Your task to perform on an android device: Search for the best rated TV on Target Image 0: 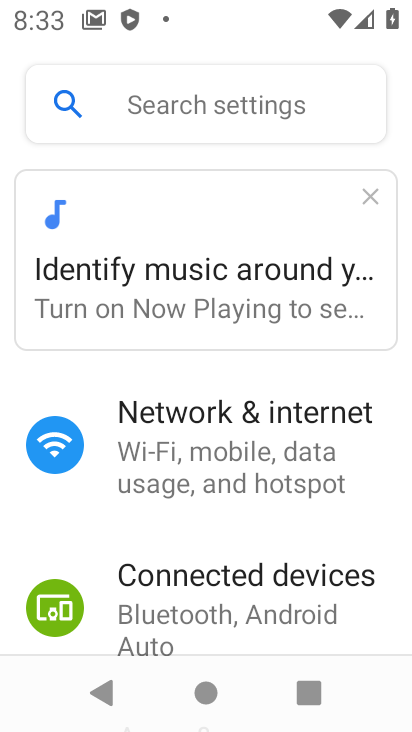
Step 0: press home button
Your task to perform on an android device: Search for the best rated TV on Target Image 1: 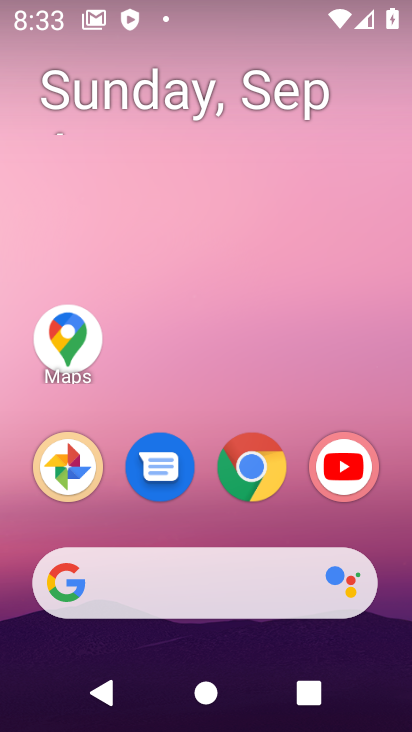
Step 1: click (264, 485)
Your task to perform on an android device: Search for the best rated TV on Target Image 2: 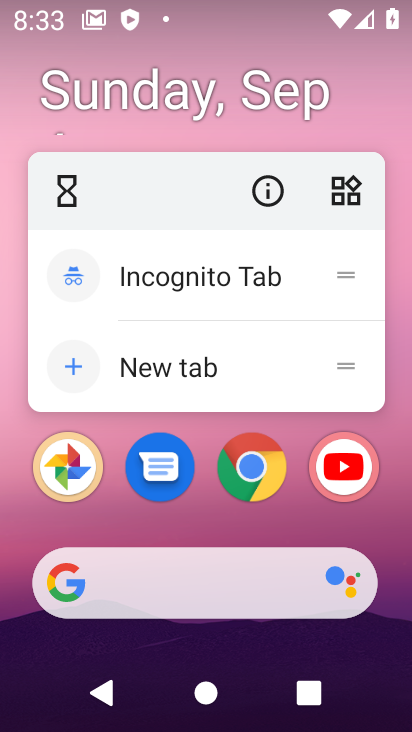
Step 2: click (262, 484)
Your task to perform on an android device: Search for the best rated TV on Target Image 3: 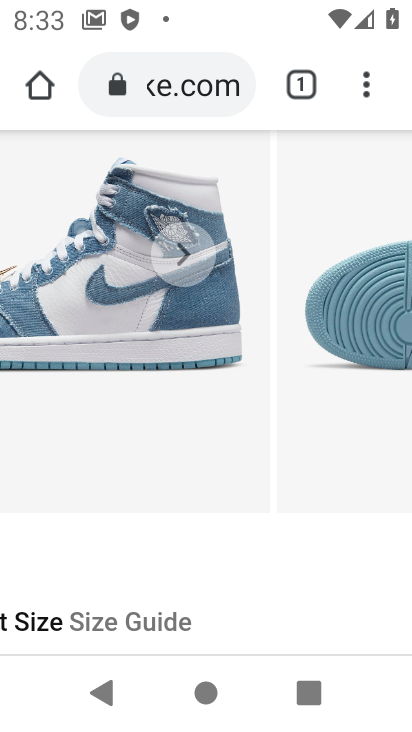
Step 3: click (169, 79)
Your task to perform on an android device: Search for the best rated TV on Target Image 4: 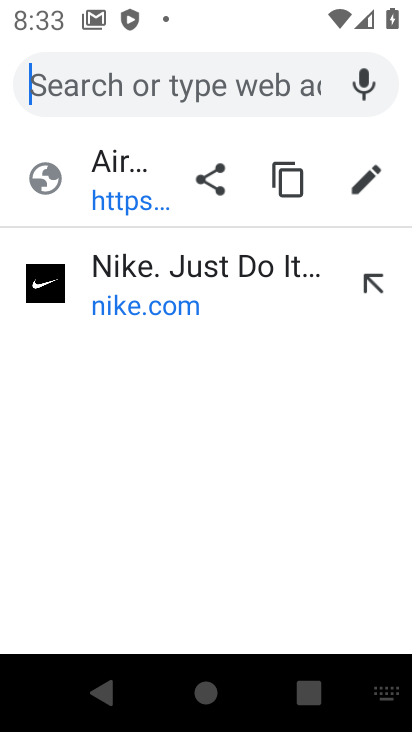
Step 4: type "target"
Your task to perform on an android device: Search for the best rated TV on Target Image 5: 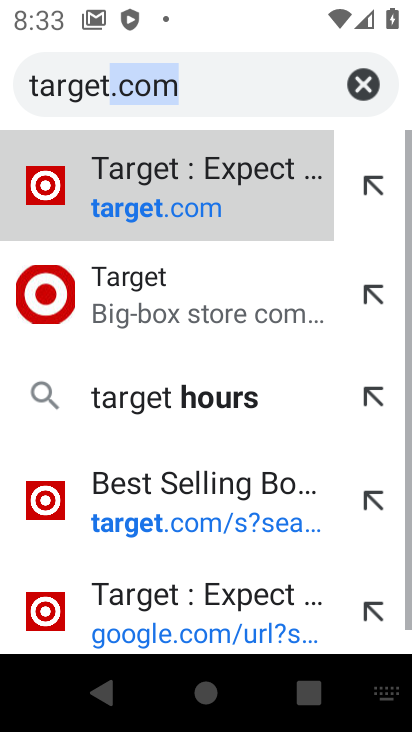
Step 5: type ""
Your task to perform on an android device: Search for the best rated TV on Target Image 6: 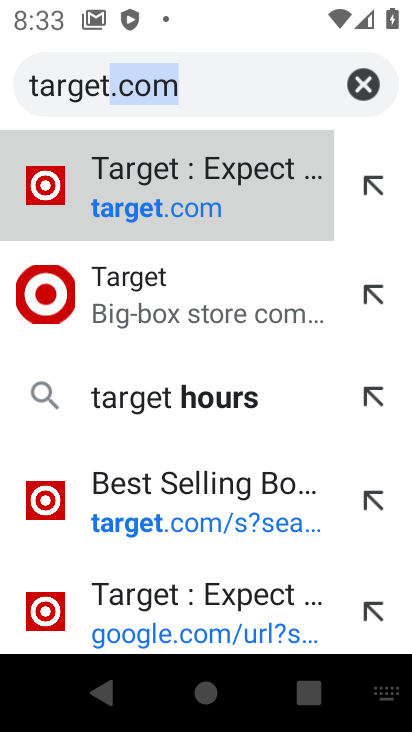
Step 6: click (134, 273)
Your task to perform on an android device: Search for the best rated TV on Target Image 7: 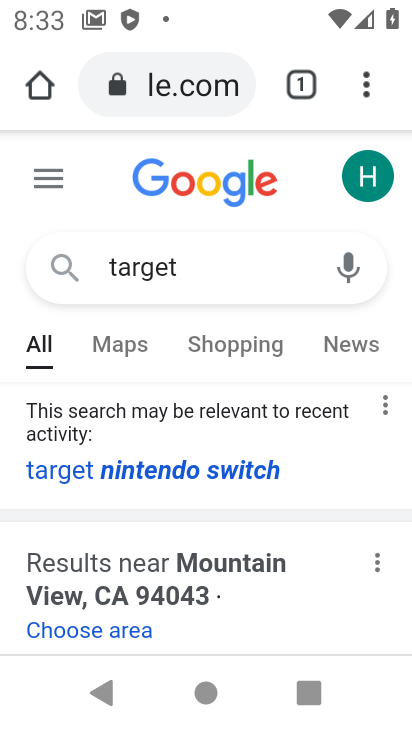
Step 7: drag from (396, 473) to (410, 345)
Your task to perform on an android device: Search for the best rated TV on Target Image 8: 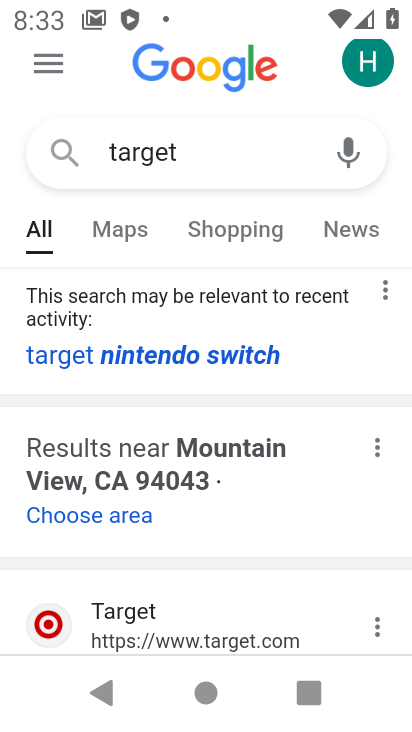
Step 8: click (122, 613)
Your task to perform on an android device: Search for the best rated TV on Target Image 9: 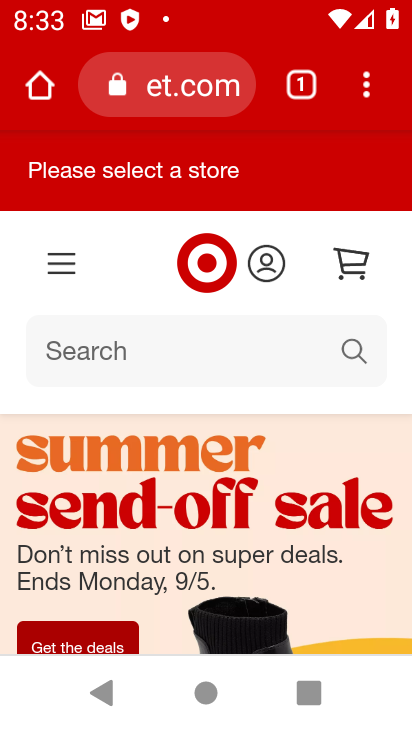
Step 9: click (344, 342)
Your task to perform on an android device: Search for the best rated TV on Target Image 10: 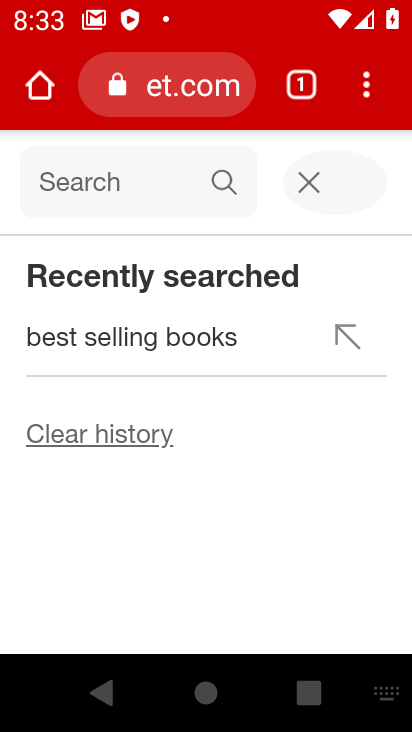
Step 10: type "tv "
Your task to perform on an android device: Search for the best rated TV on Target Image 11: 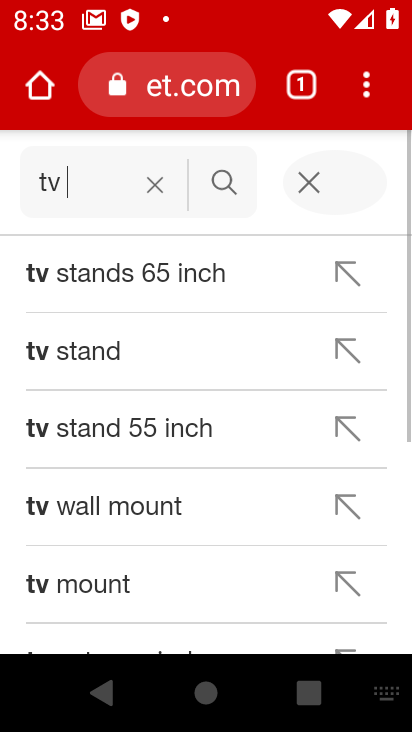
Step 11: type ""
Your task to perform on an android device: Search for the best rated TV on Target Image 12: 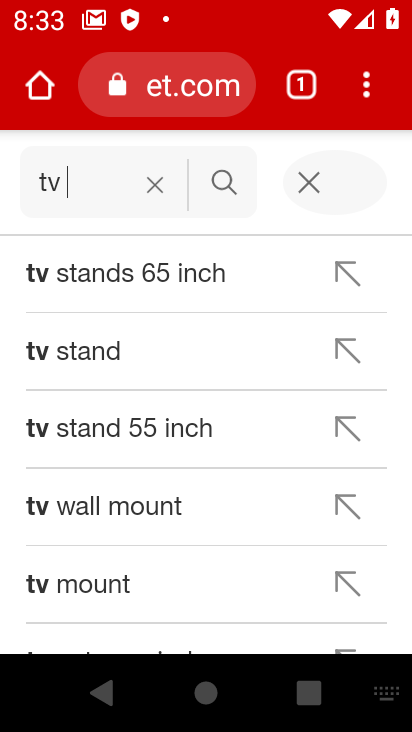
Step 12: click (84, 353)
Your task to perform on an android device: Search for the best rated TV on Target Image 13: 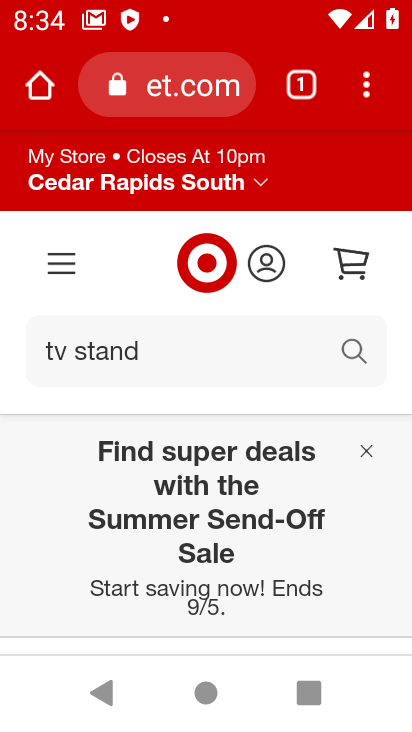
Step 13: drag from (390, 545) to (390, 184)
Your task to perform on an android device: Search for the best rated TV on Target Image 14: 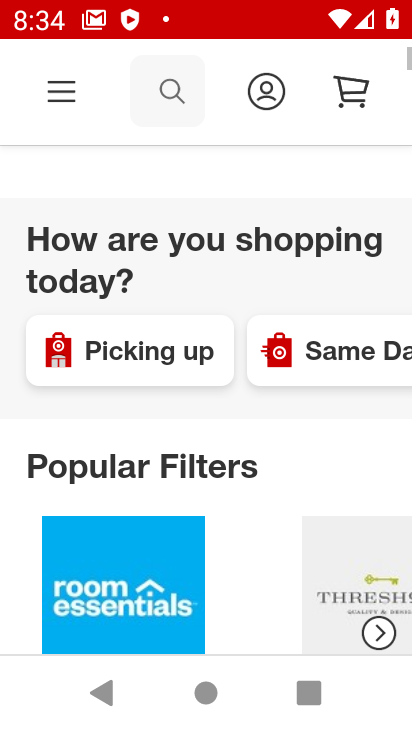
Step 14: drag from (374, 371) to (408, 187)
Your task to perform on an android device: Search for the best rated TV on Target Image 15: 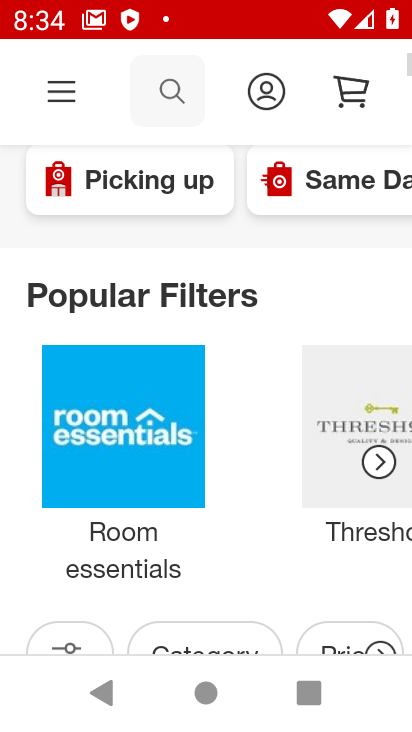
Step 15: drag from (361, 574) to (383, 245)
Your task to perform on an android device: Search for the best rated TV on Target Image 16: 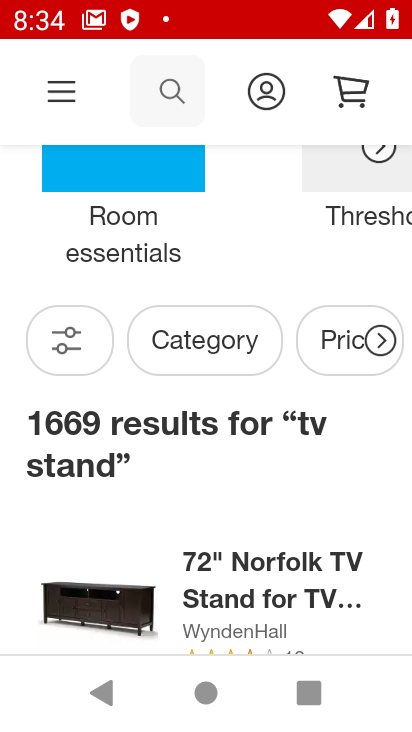
Step 16: drag from (377, 571) to (386, 288)
Your task to perform on an android device: Search for the best rated TV on Target Image 17: 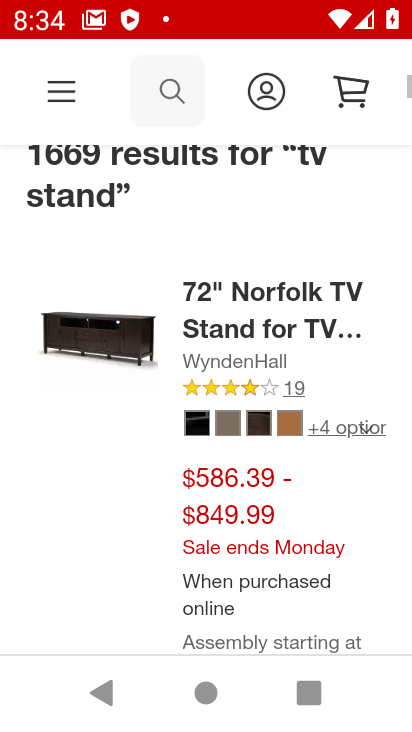
Step 17: drag from (374, 516) to (383, 182)
Your task to perform on an android device: Search for the best rated TV on Target Image 18: 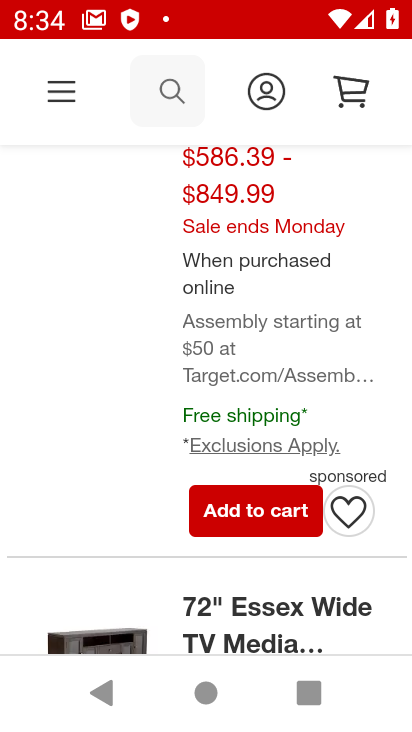
Step 18: drag from (370, 615) to (412, 340)
Your task to perform on an android device: Search for the best rated TV on Target Image 19: 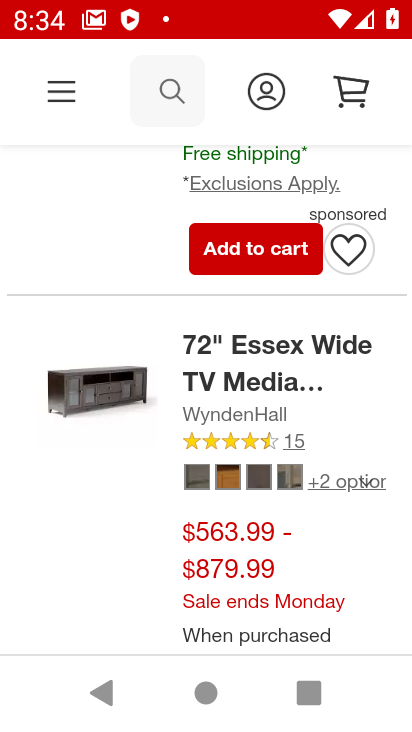
Step 19: drag from (347, 548) to (390, 194)
Your task to perform on an android device: Search for the best rated TV on Target Image 20: 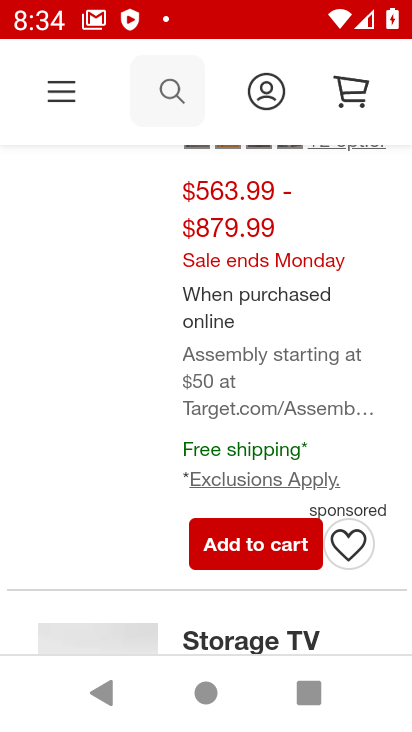
Step 20: drag from (357, 504) to (265, 681)
Your task to perform on an android device: Search for the best rated TV on Target Image 21: 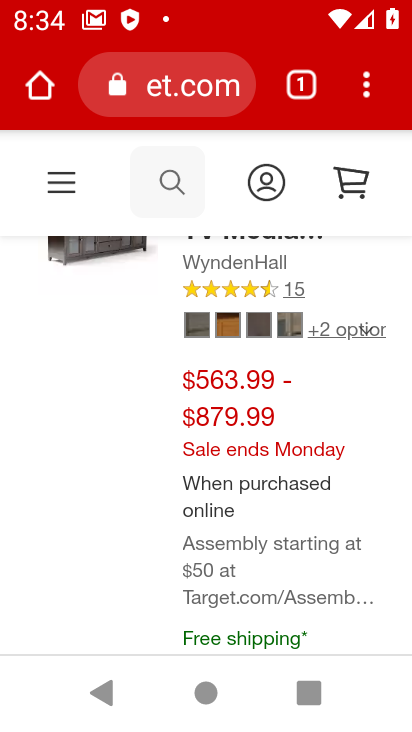
Step 21: drag from (375, 568) to (400, 330)
Your task to perform on an android device: Search for the best rated TV on Target Image 22: 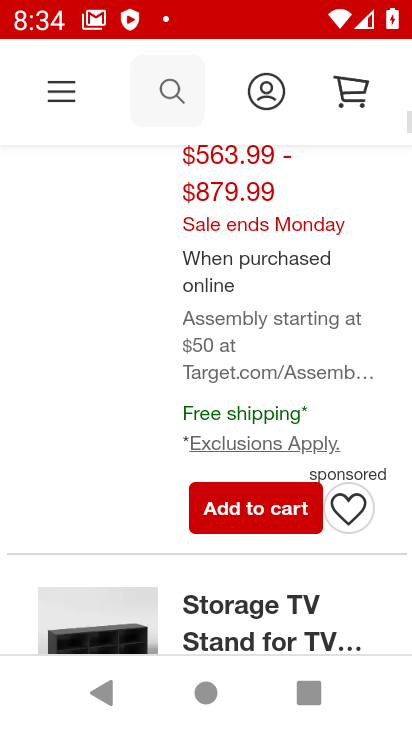
Step 22: drag from (320, 729) to (303, 643)
Your task to perform on an android device: Search for the best rated TV on Target Image 23: 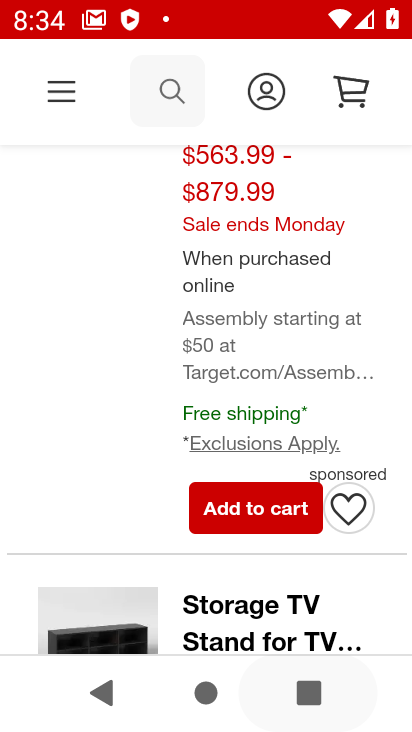
Step 23: drag from (391, 243) to (369, 563)
Your task to perform on an android device: Search for the best rated TV on Target Image 24: 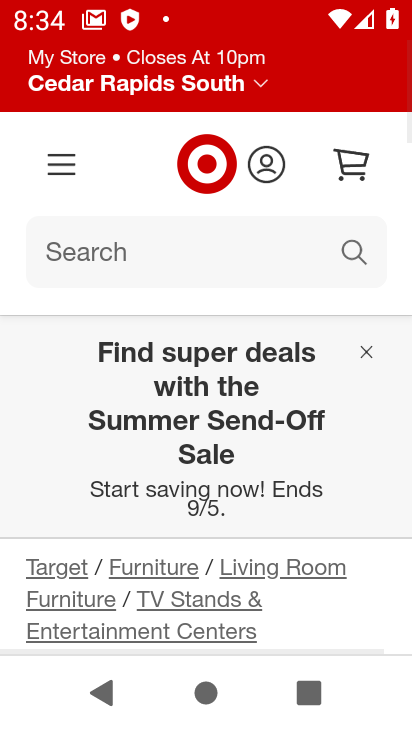
Step 24: drag from (385, 316) to (365, 694)
Your task to perform on an android device: Search for the best rated TV on Target Image 25: 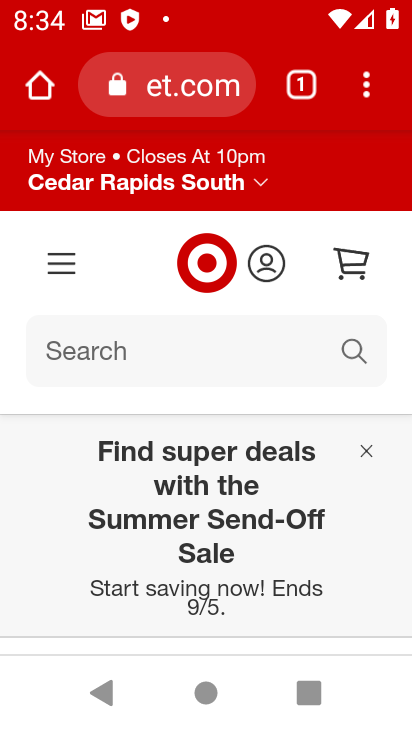
Step 25: click (74, 373)
Your task to perform on an android device: Search for the best rated TV on Target Image 26: 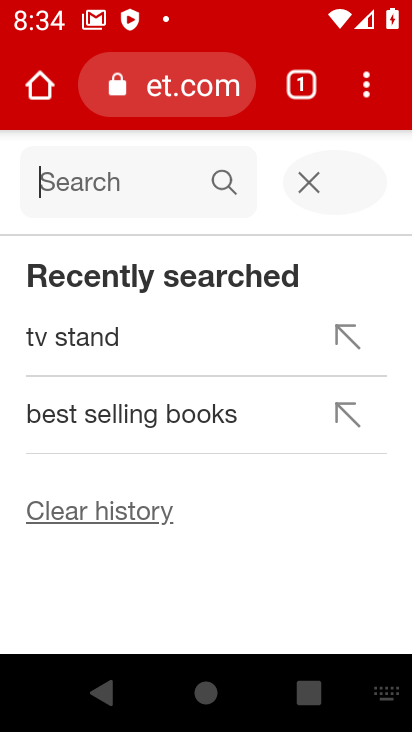
Step 26: type "best rated tv"
Your task to perform on an android device: Search for the best rated TV on Target Image 27: 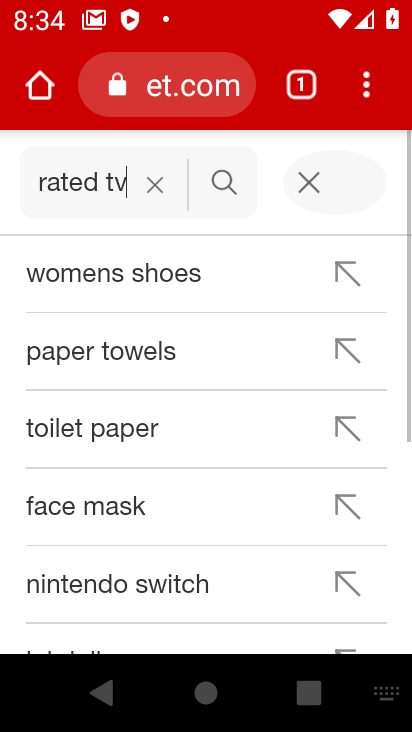
Step 27: type ""
Your task to perform on an android device: Search for the best rated TV on Target Image 28: 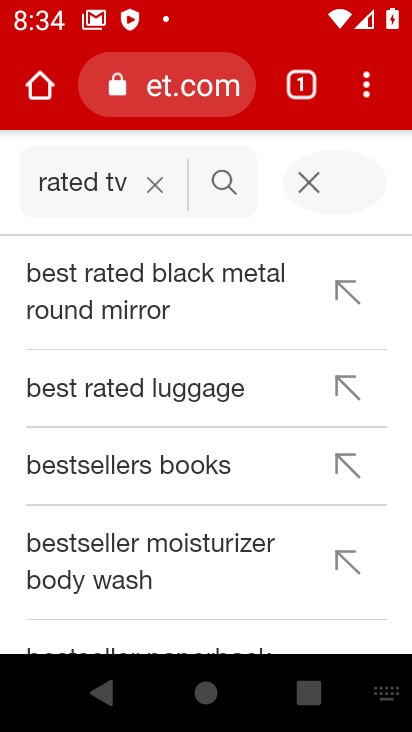
Step 28: click (212, 180)
Your task to perform on an android device: Search for the best rated TV on Target Image 29: 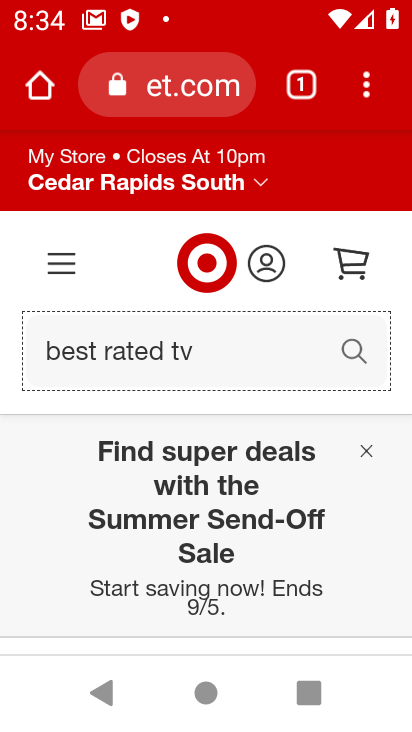
Step 29: task complete